Your task to perform on an android device: Open the map Image 0: 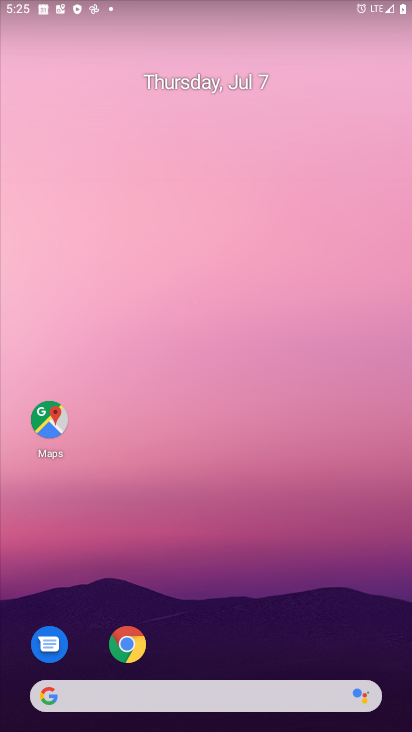
Step 0: click (47, 426)
Your task to perform on an android device: Open the map Image 1: 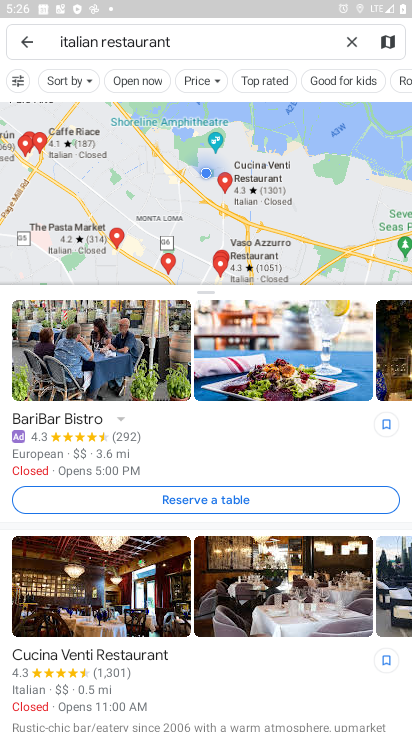
Step 1: click (357, 43)
Your task to perform on an android device: Open the map Image 2: 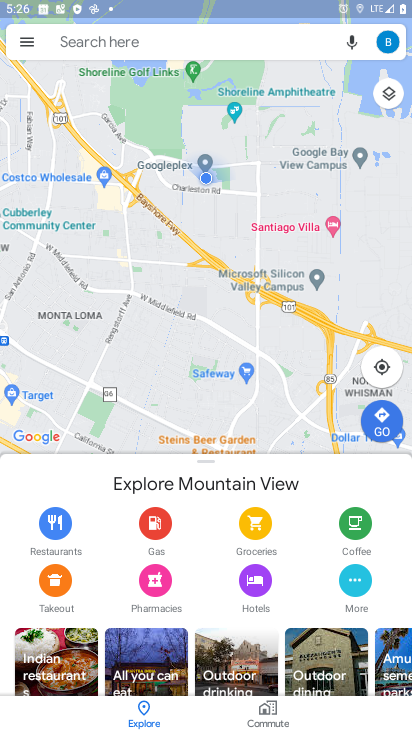
Step 2: task complete